Your task to perform on an android device: Open my contact list Image 0: 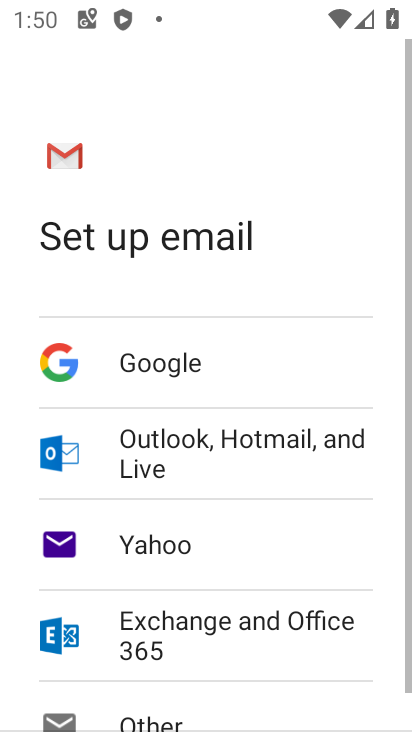
Step 0: press home button
Your task to perform on an android device: Open my contact list Image 1: 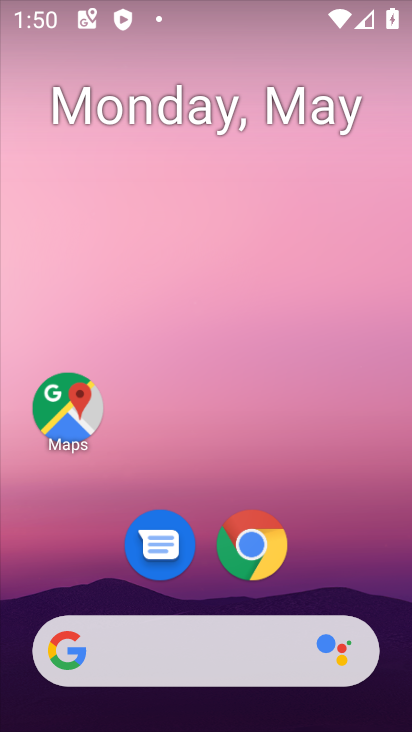
Step 1: drag from (187, 705) to (146, 68)
Your task to perform on an android device: Open my contact list Image 2: 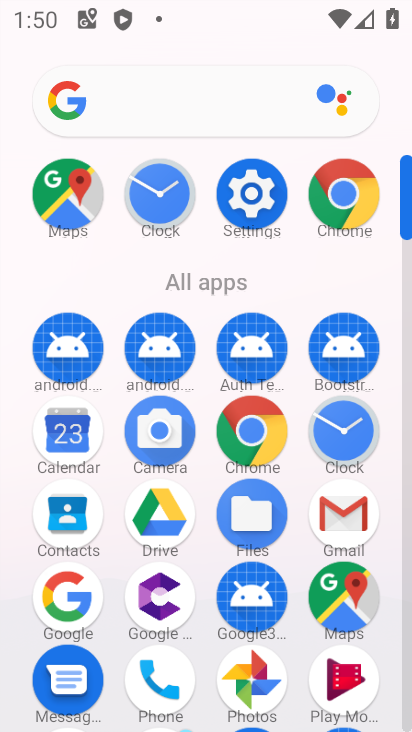
Step 2: click (67, 527)
Your task to perform on an android device: Open my contact list Image 3: 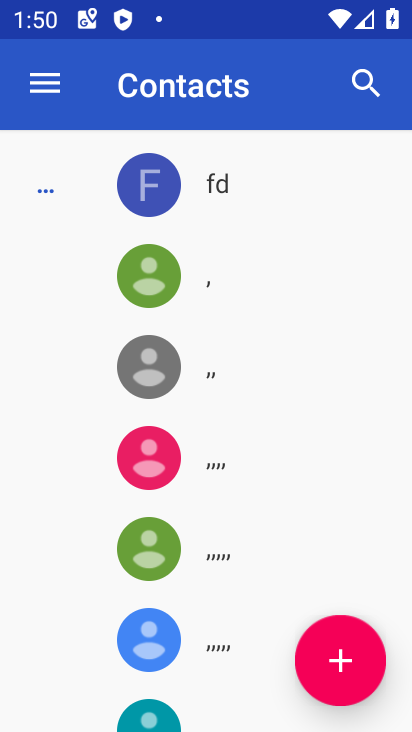
Step 3: task complete